Your task to perform on an android device: uninstall "Cash App" Image 0: 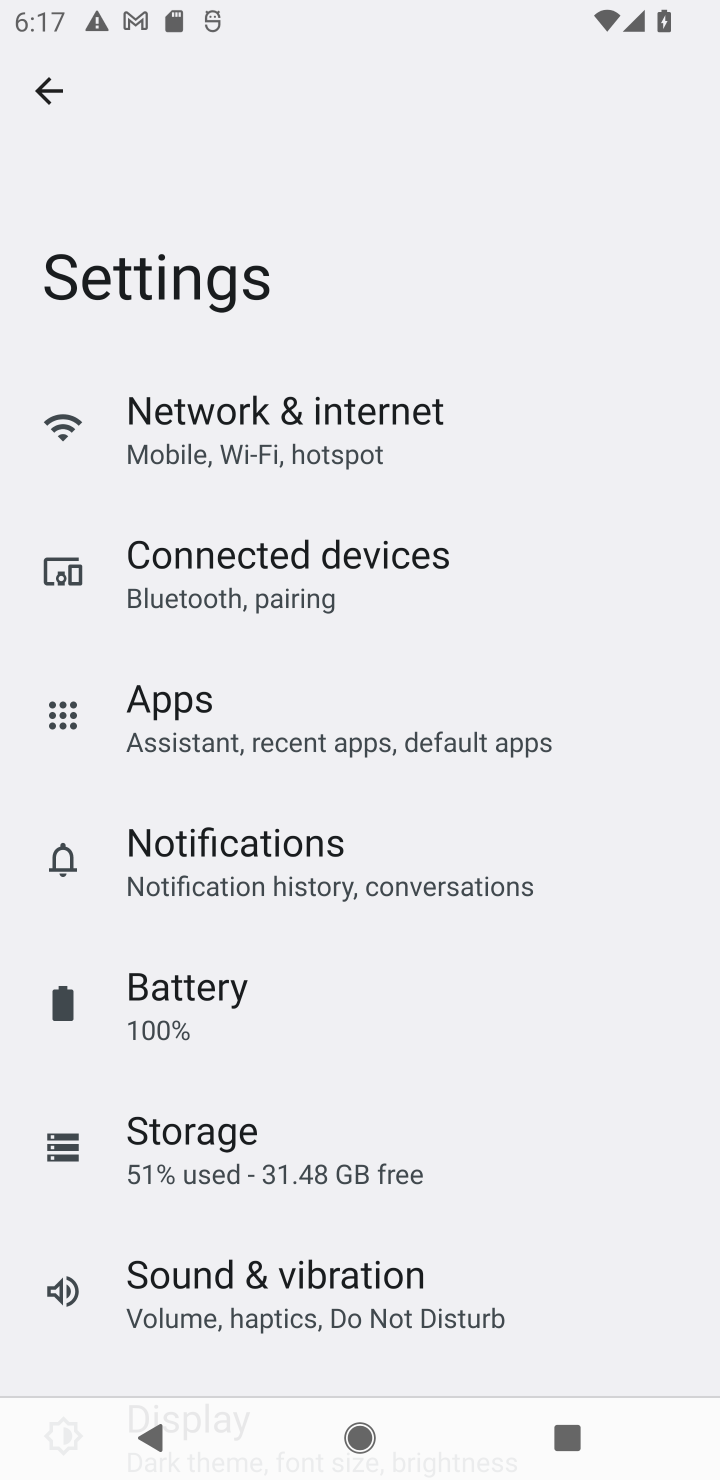
Step 0: press home button
Your task to perform on an android device: uninstall "Cash App" Image 1: 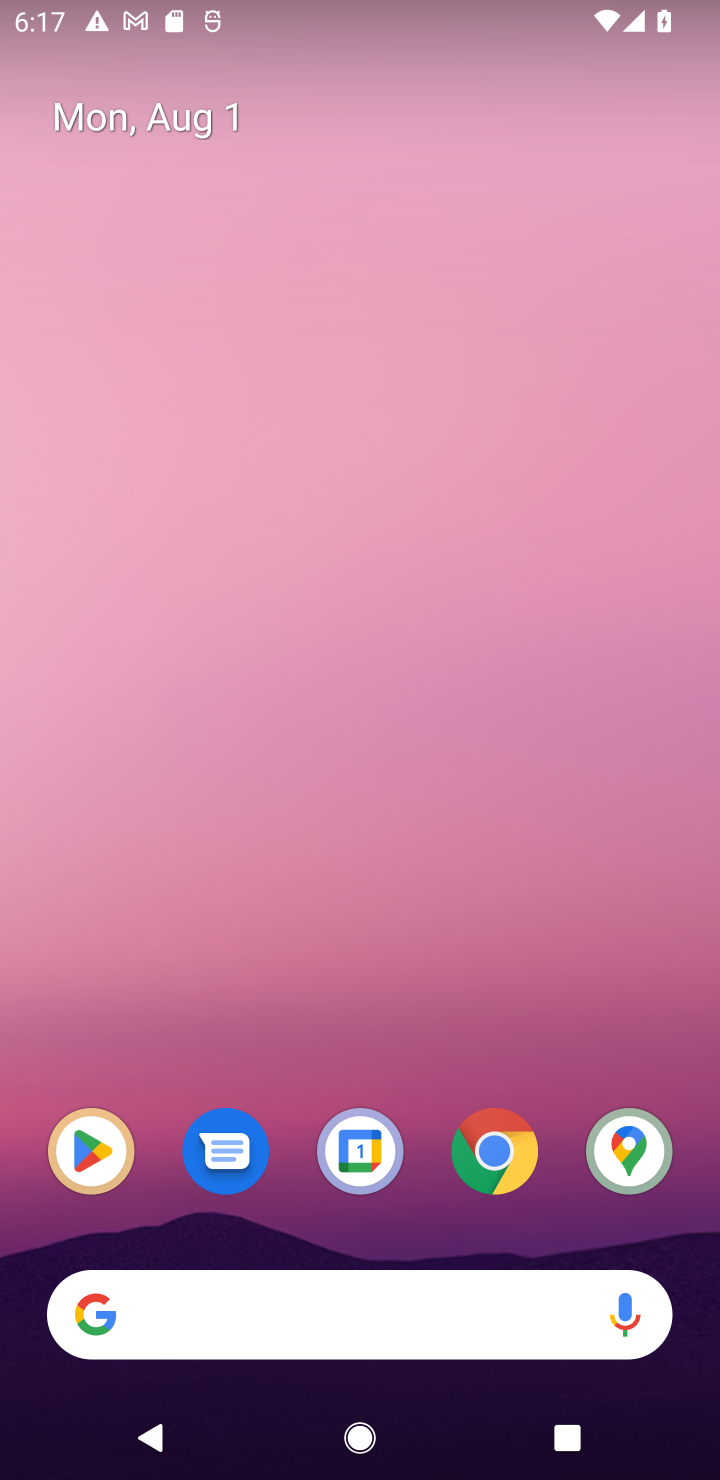
Step 1: drag from (551, 1300) to (473, 15)
Your task to perform on an android device: uninstall "Cash App" Image 2: 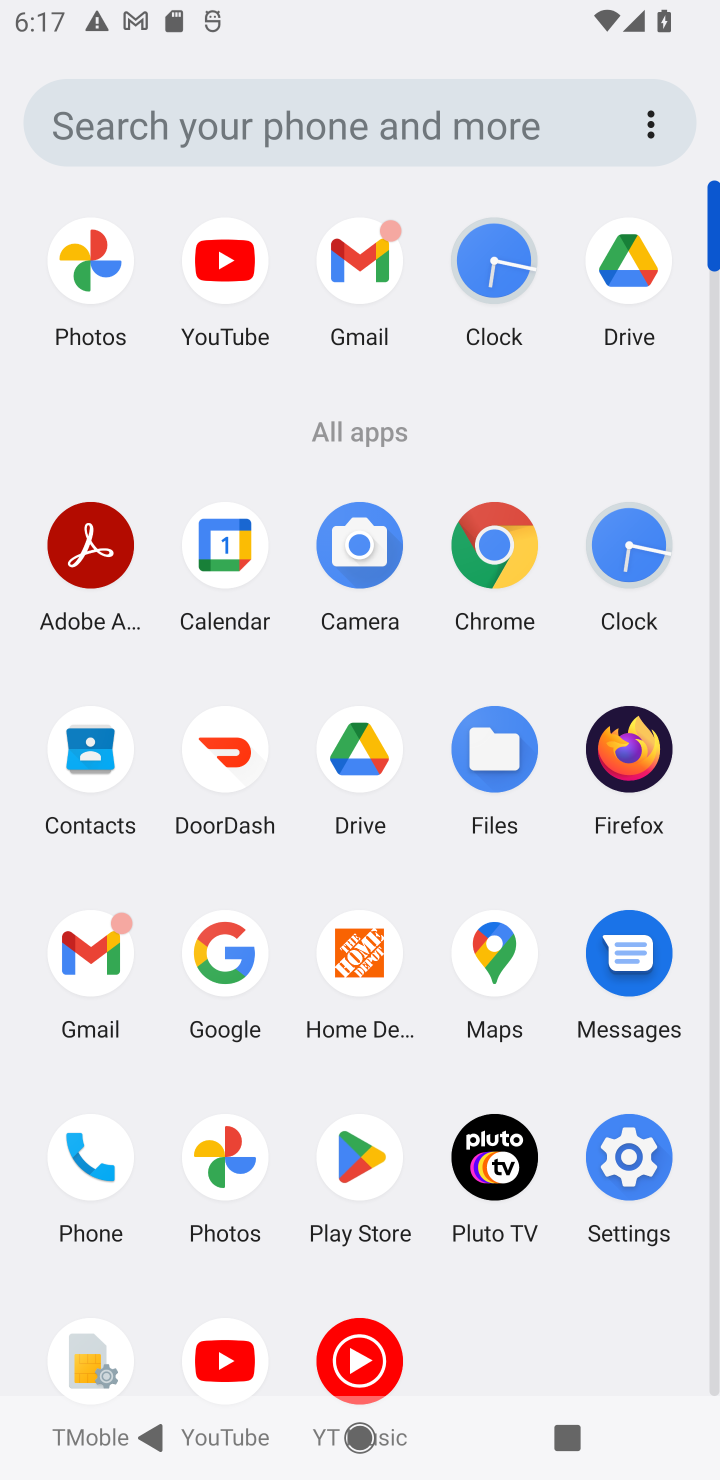
Step 2: click (383, 1166)
Your task to perform on an android device: uninstall "Cash App" Image 3: 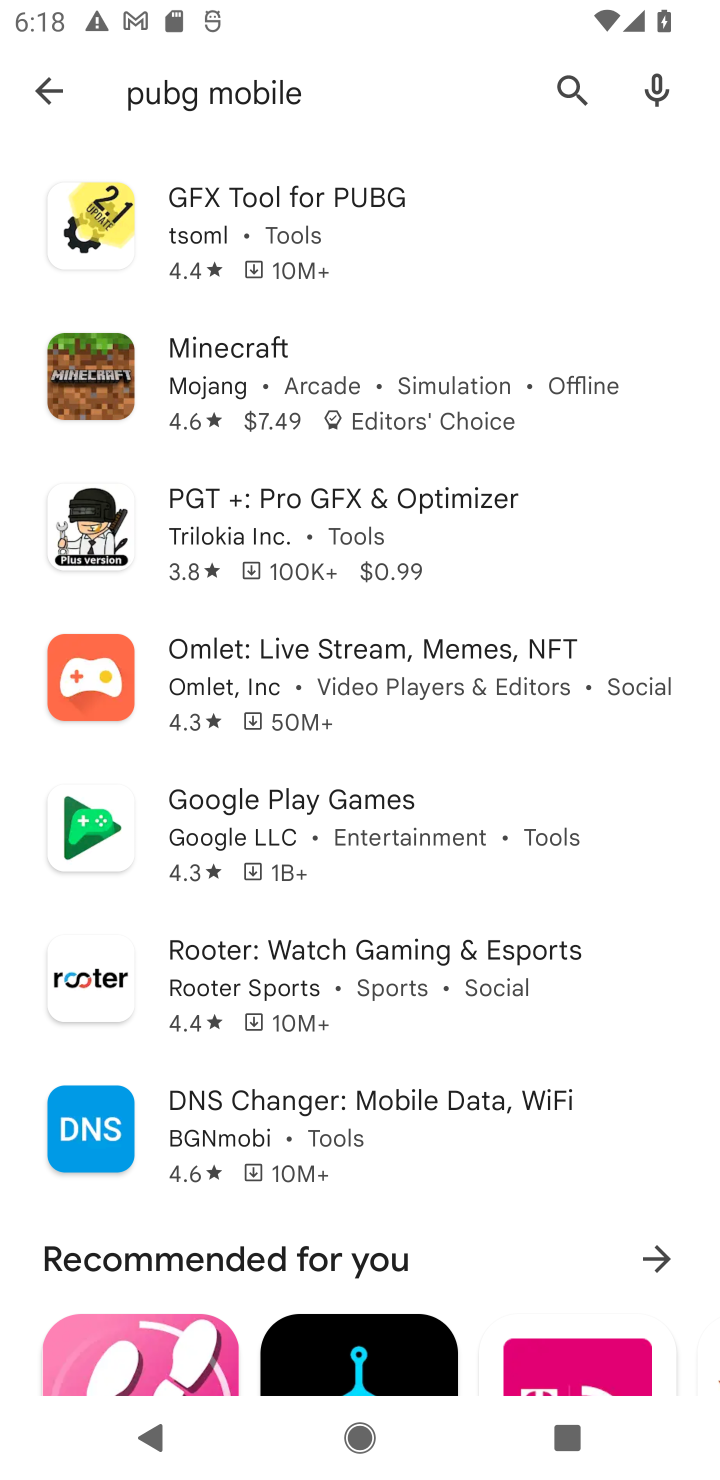
Step 3: click (557, 81)
Your task to perform on an android device: uninstall "Cash App" Image 4: 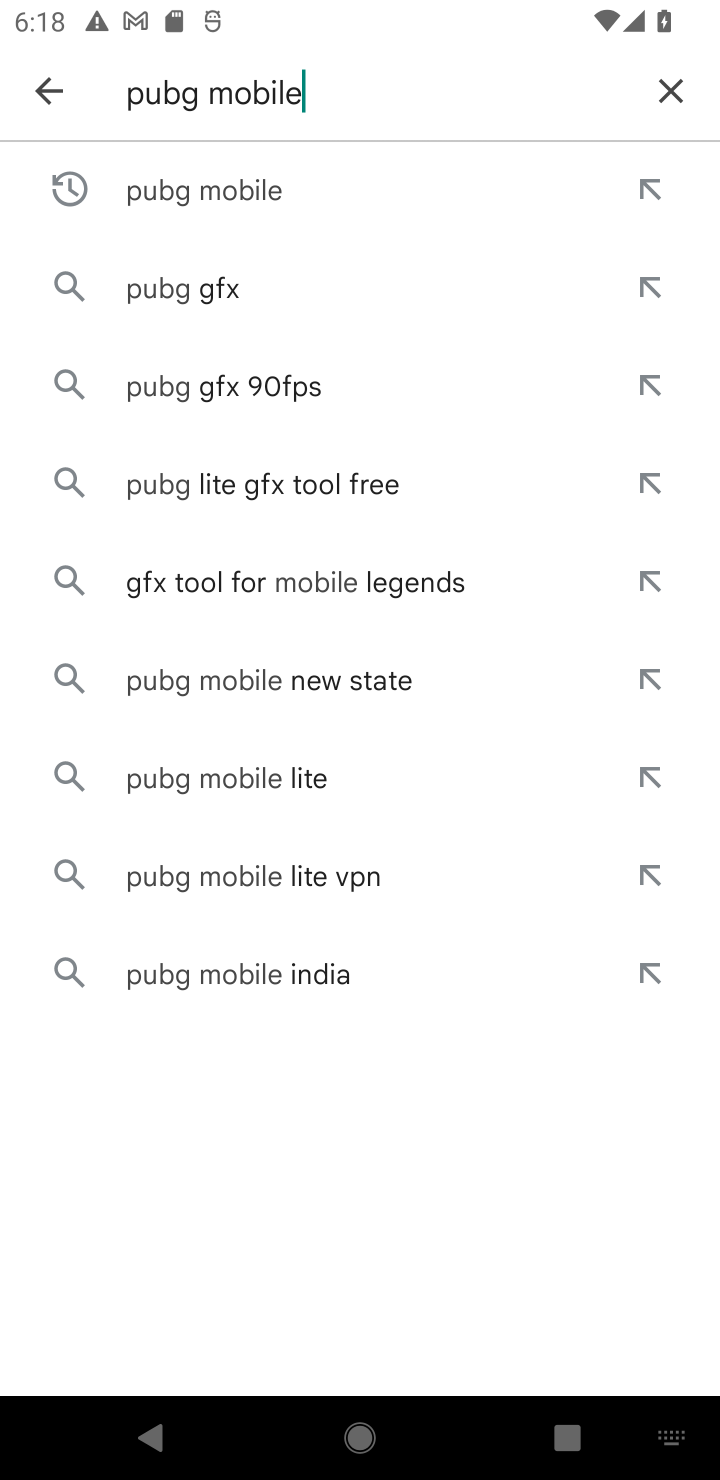
Step 4: click (670, 87)
Your task to perform on an android device: uninstall "Cash App" Image 5: 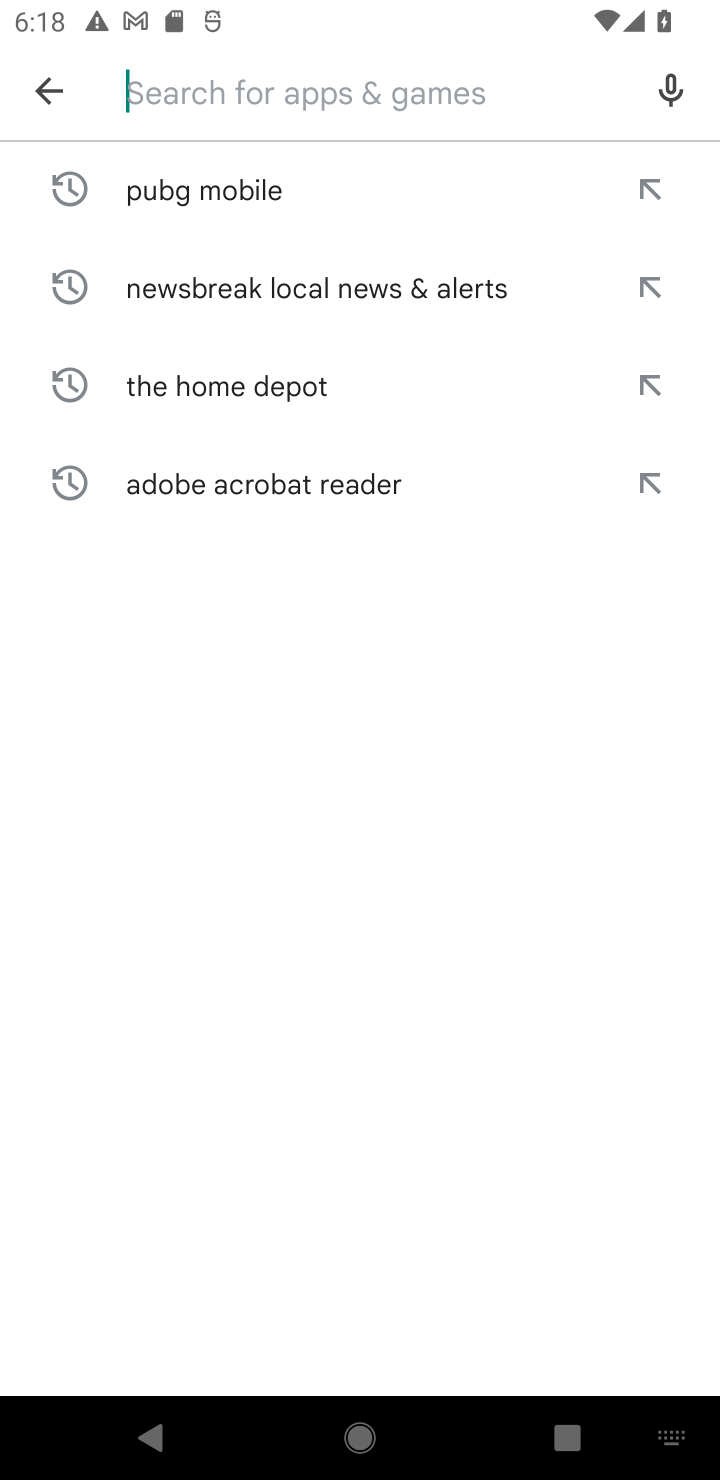
Step 5: type "cashapp"
Your task to perform on an android device: uninstall "Cash App" Image 6: 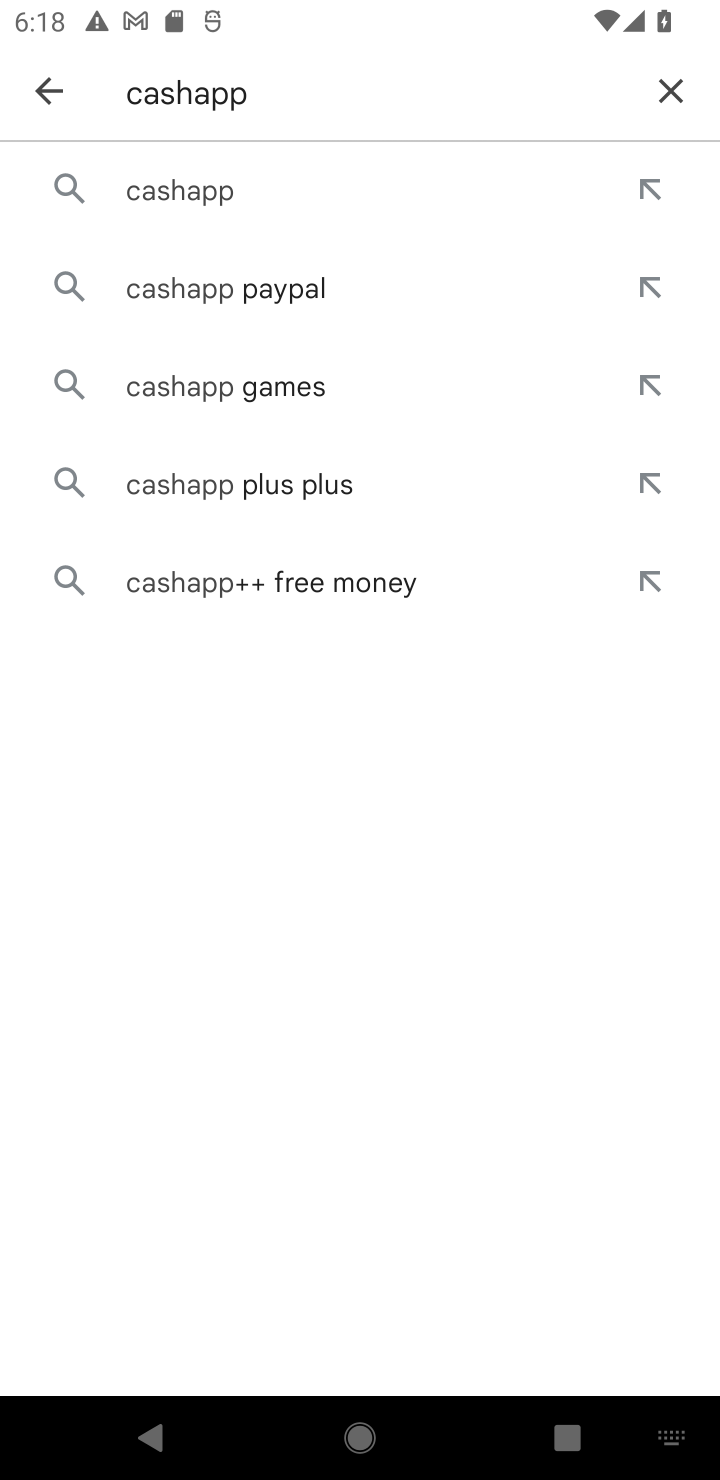
Step 6: click (291, 206)
Your task to perform on an android device: uninstall "Cash App" Image 7: 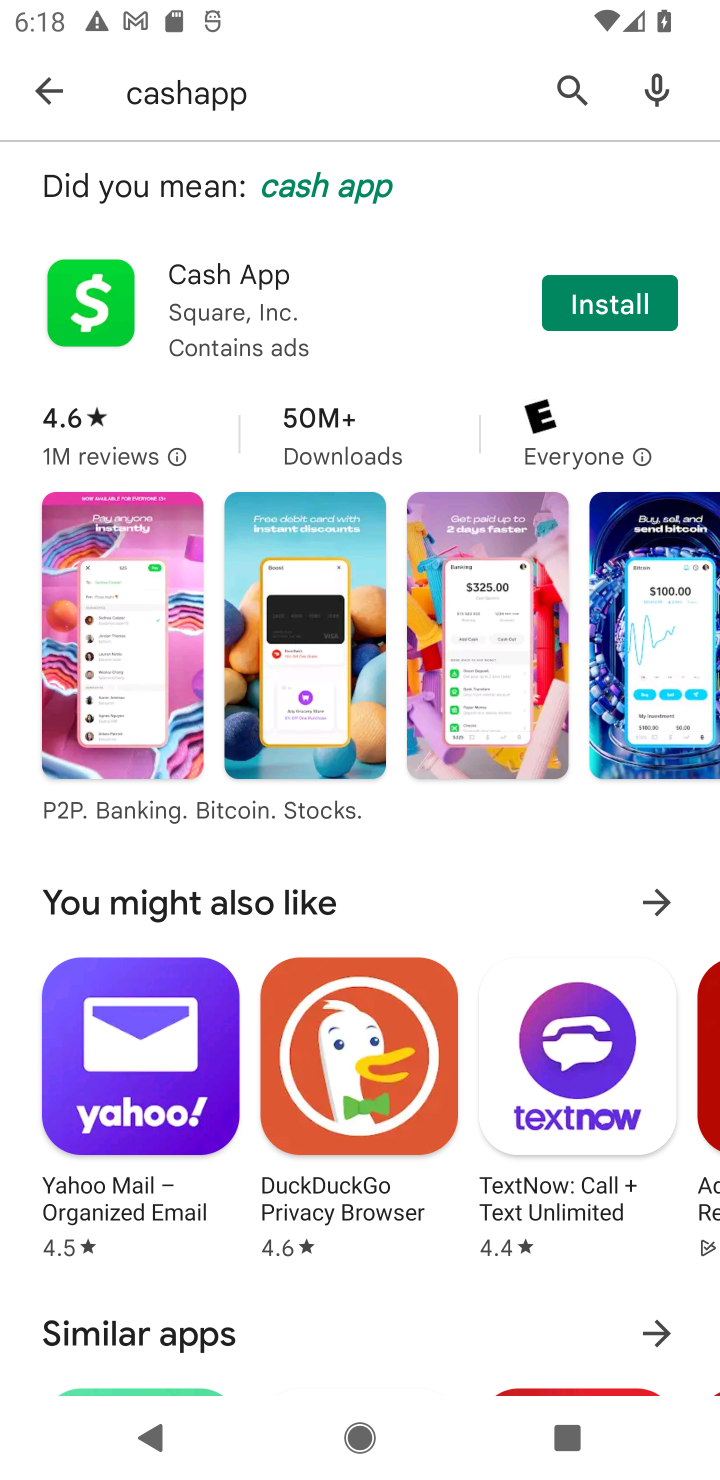
Step 7: click (619, 300)
Your task to perform on an android device: uninstall "Cash App" Image 8: 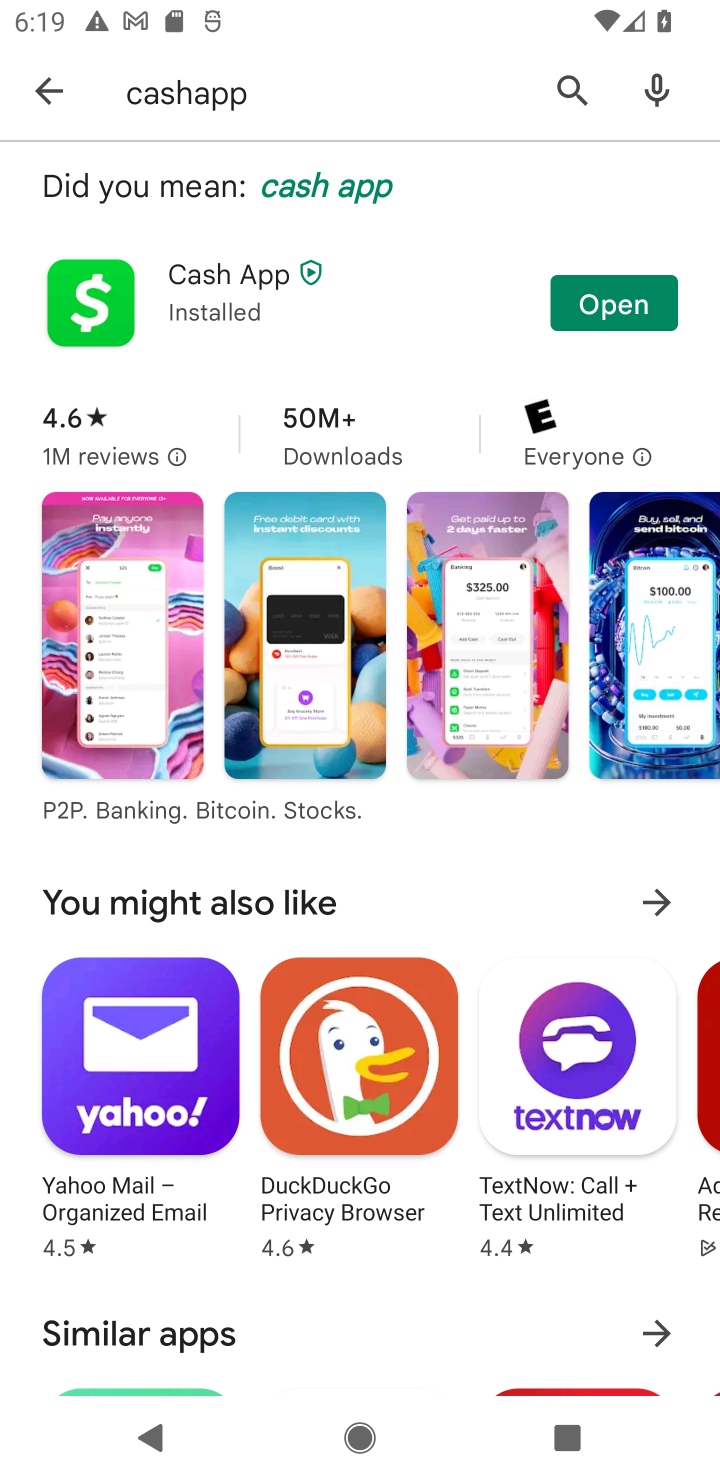
Step 8: task complete